Your task to perform on an android device: Open location settings Image 0: 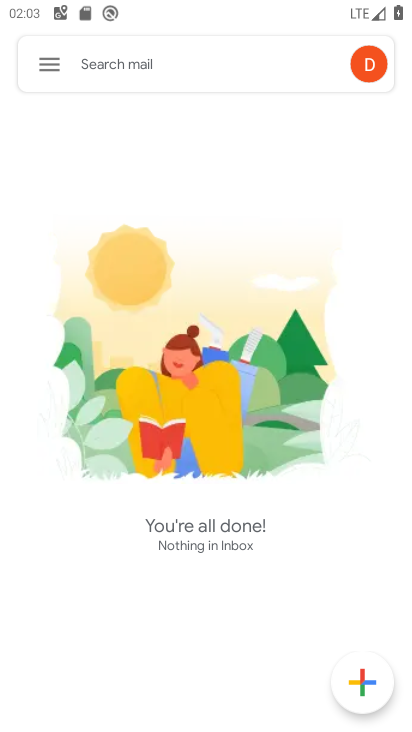
Step 0: press home button
Your task to perform on an android device: Open location settings Image 1: 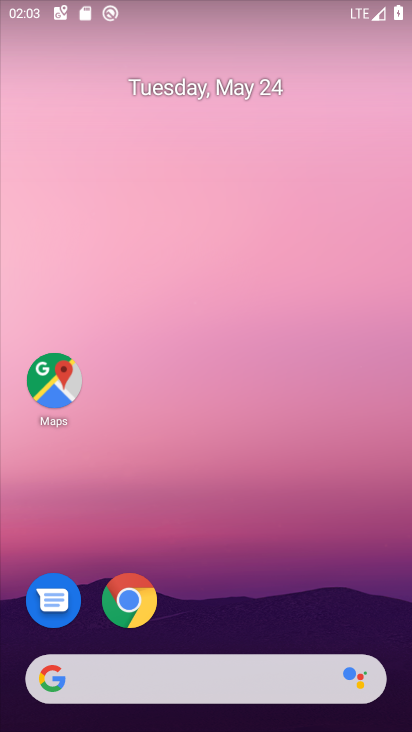
Step 1: drag from (184, 314) to (156, 172)
Your task to perform on an android device: Open location settings Image 2: 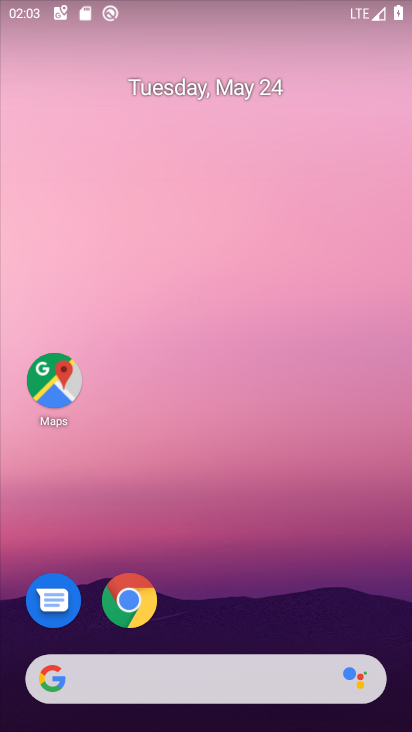
Step 2: drag from (224, 555) to (172, 86)
Your task to perform on an android device: Open location settings Image 3: 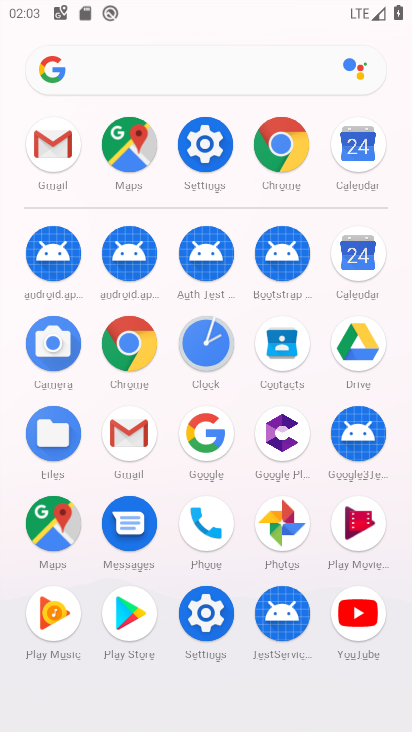
Step 3: click (193, 151)
Your task to perform on an android device: Open location settings Image 4: 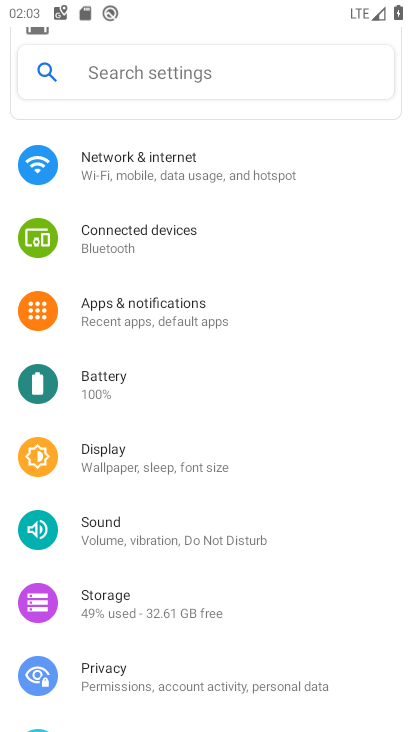
Step 4: drag from (206, 524) to (163, 262)
Your task to perform on an android device: Open location settings Image 5: 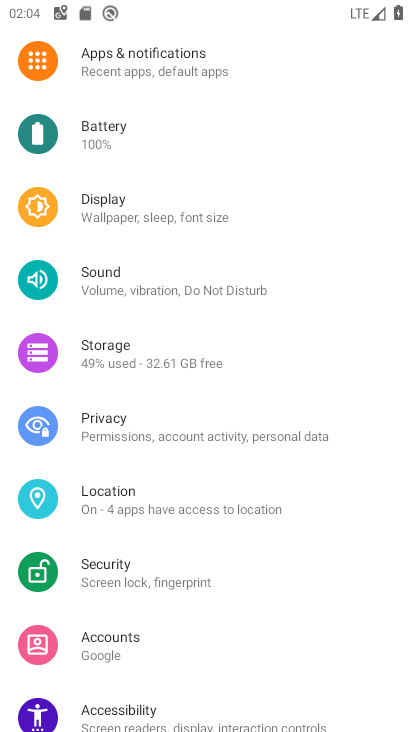
Step 5: click (152, 503)
Your task to perform on an android device: Open location settings Image 6: 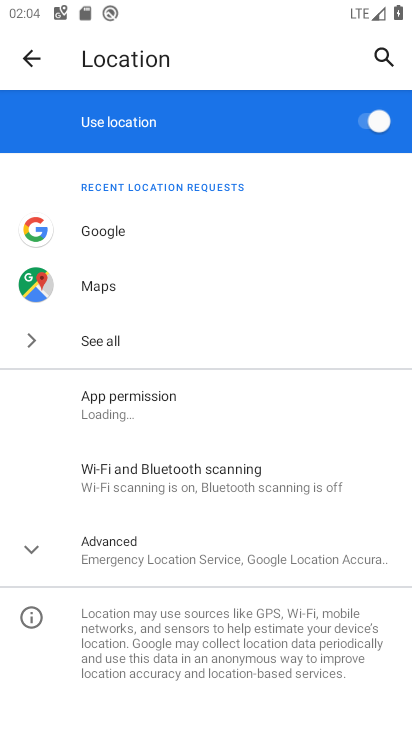
Step 6: task complete